Your task to perform on an android device: change the clock display to digital Image 0: 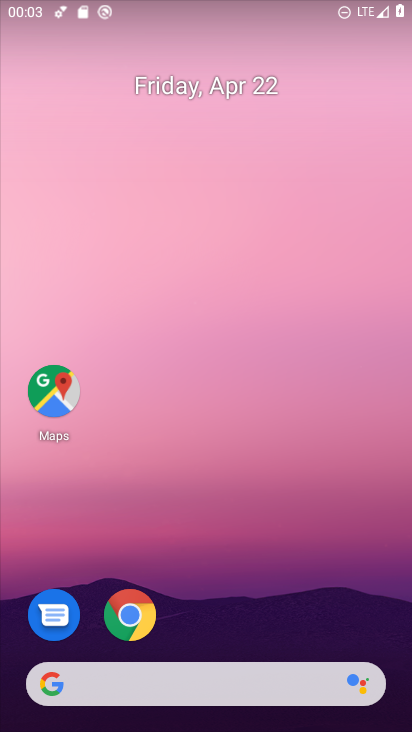
Step 0: drag from (218, 633) to (225, 82)
Your task to perform on an android device: change the clock display to digital Image 1: 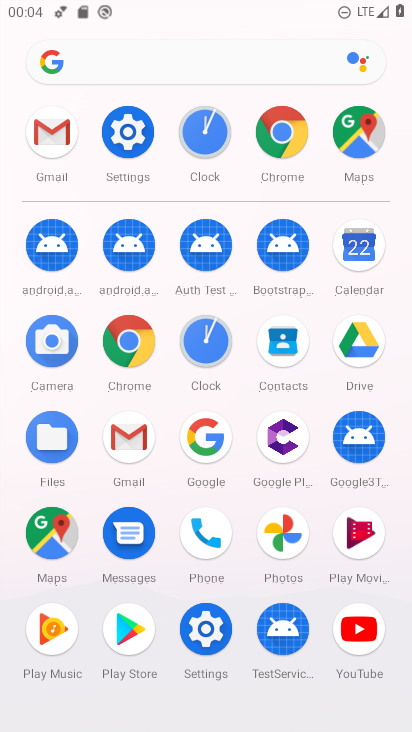
Step 1: click (206, 127)
Your task to perform on an android device: change the clock display to digital Image 2: 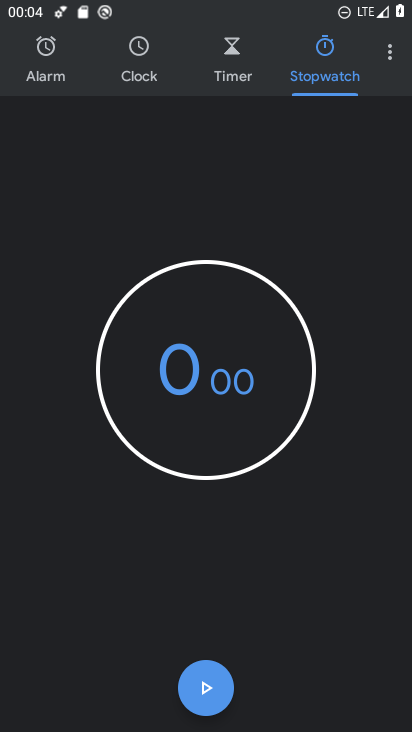
Step 2: click (386, 42)
Your task to perform on an android device: change the clock display to digital Image 3: 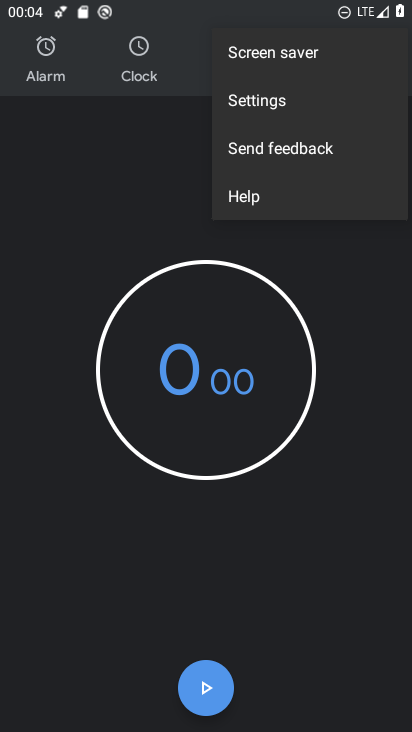
Step 3: click (271, 103)
Your task to perform on an android device: change the clock display to digital Image 4: 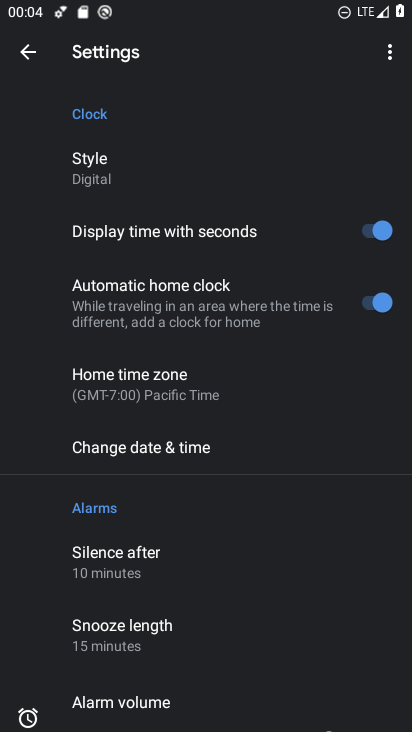
Step 4: click (125, 171)
Your task to perform on an android device: change the clock display to digital Image 5: 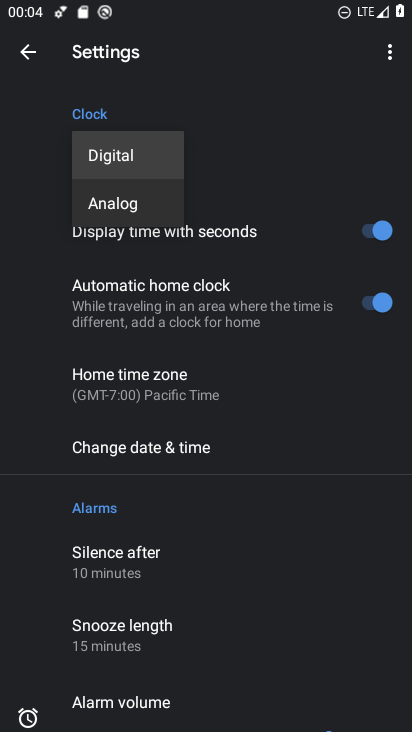
Step 5: click (146, 155)
Your task to perform on an android device: change the clock display to digital Image 6: 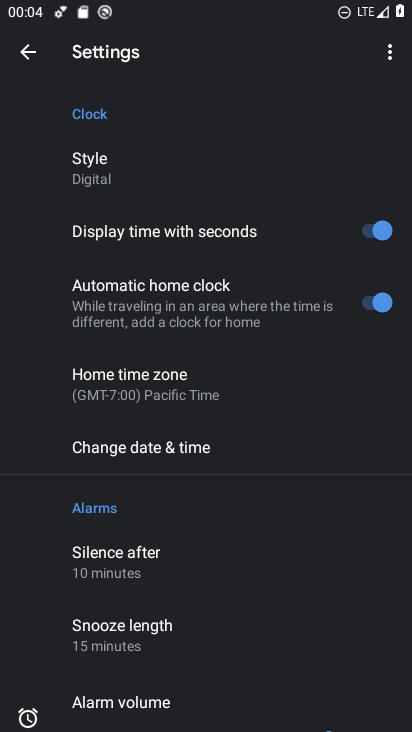
Step 6: task complete